Your task to perform on an android device: find which apps use the phone's location Image 0: 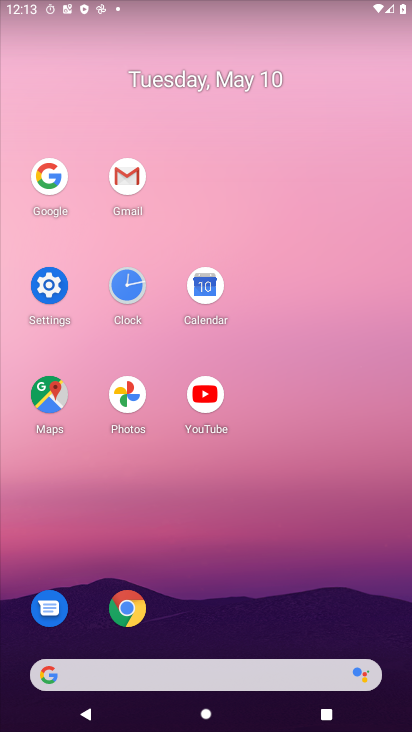
Step 0: click (54, 287)
Your task to perform on an android device: find which apps use the phone's location Image 1: 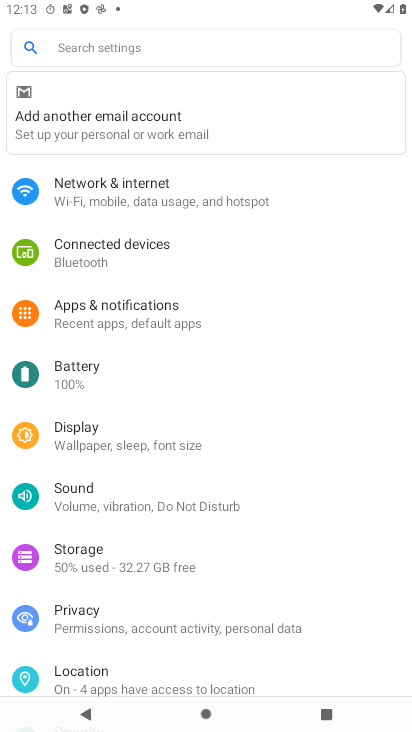
Step 1: click (189, 659)
Your task to perform on an android device: find which apps use the phone's location Image 2: 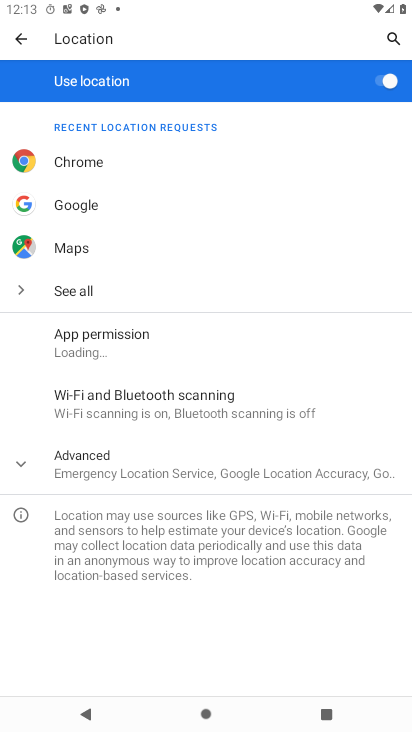
Step 2: task complete